Your task to perform on an android device: star an email in the gmail app Image 0: 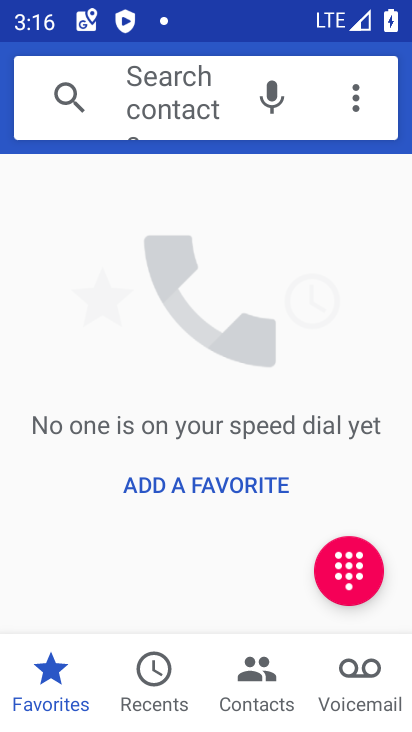
Step 0: press back button
Your task to perform on an android device: star an email in the gmail app Image 1: 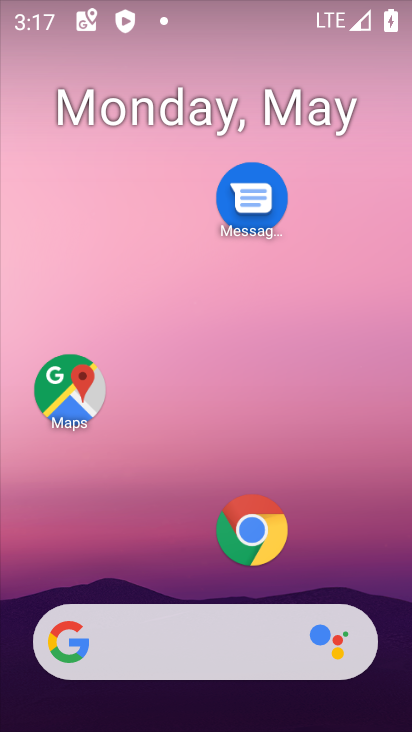
Step 1: drag from (119, 495) to (215, 51)
Your task to perform on an android device: star an email in the gmail app Image 2: 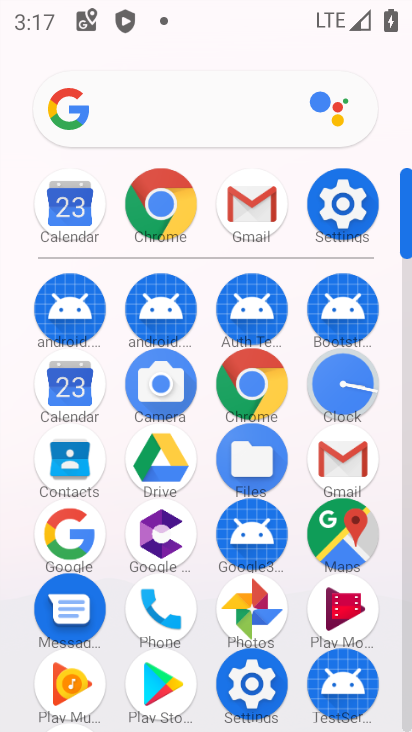
Step 2: click (259, 196)
Your task to perform on an android device: star an email in the gmail app Image 3: 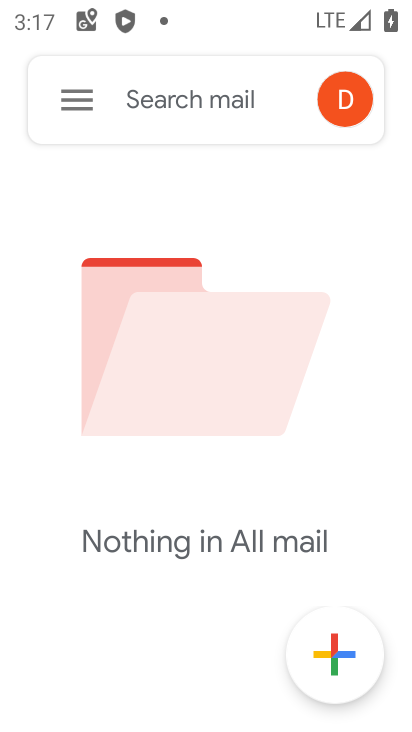
Step 3: task complete